Your task to perform on an android device: Search for "razer blade" on amazon, select the first entry, and add it to the cart. Image 0: 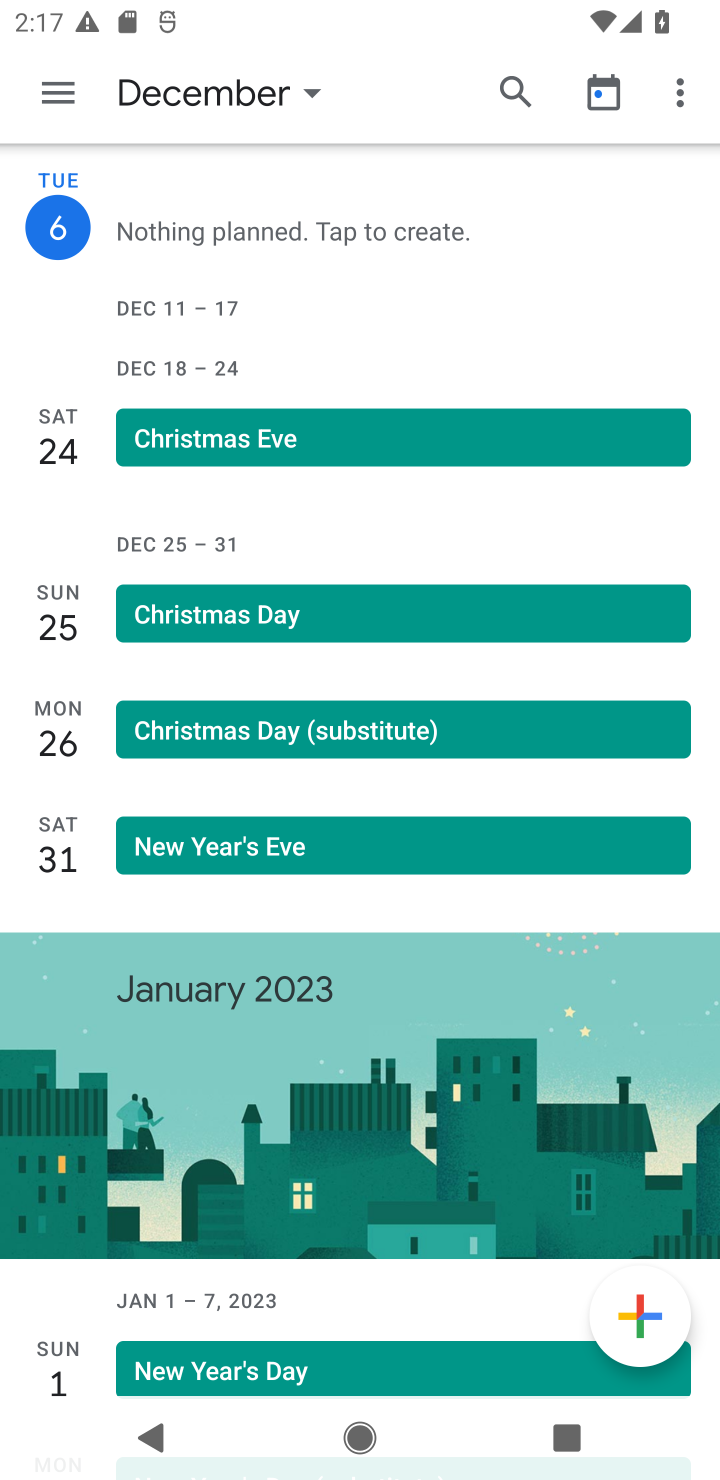
Step 0: press home button
Your task to perform on an android device: Search for "razer blade" on amazon, select the first entry, and add it to the cart. Image 1: 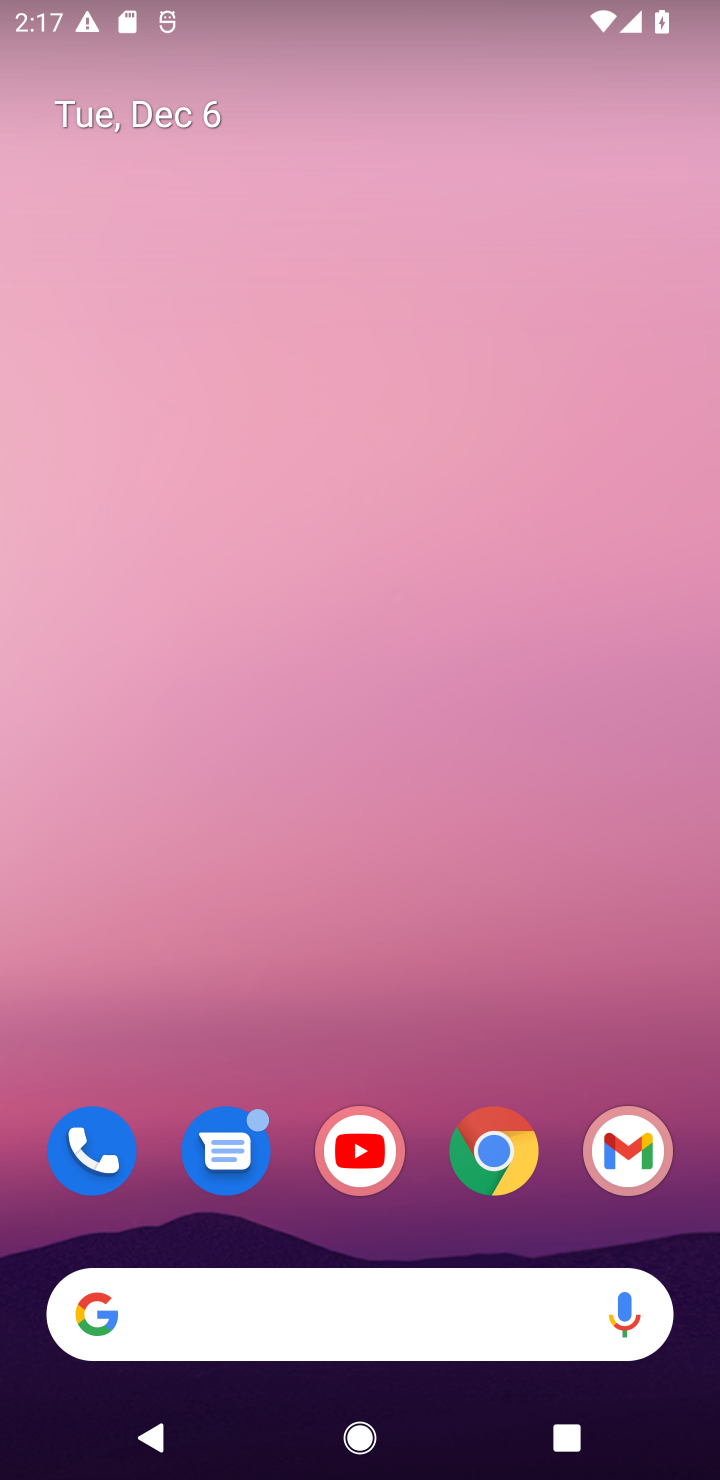
Step 1: click (492, 1168)
Your task to perform on an android device: Search for "razer blade" on amazon, select the first entry, and add it to the cart. Image 2: 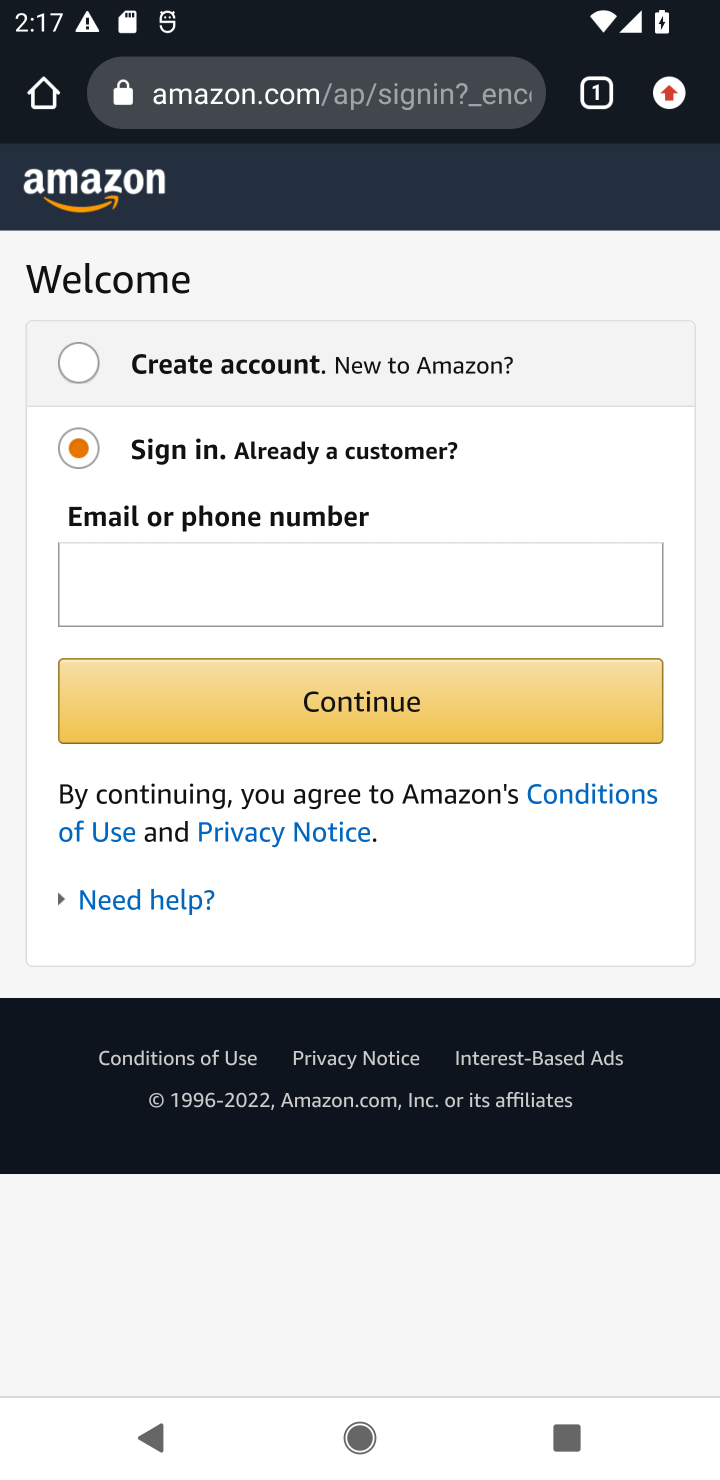
Step 2: press back button
Your task to perform on an android device: Search for "razer blade" on amazon, select the first entry, and add it to the cart. Image 3: 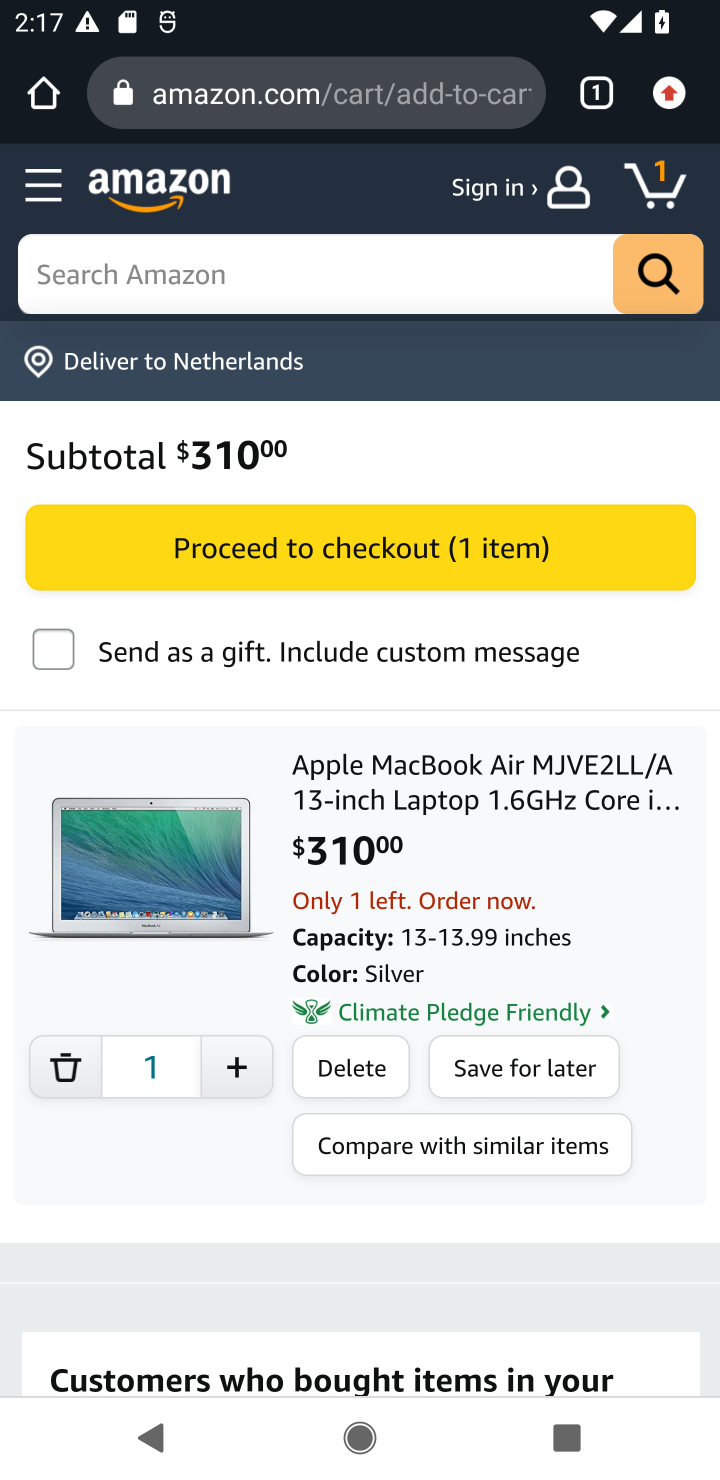
Step 3: click (363, 275)
Your task to perform on an android device: Search for "razer blade" on amazon, select the first entry, and add it to the cart. Image 4: 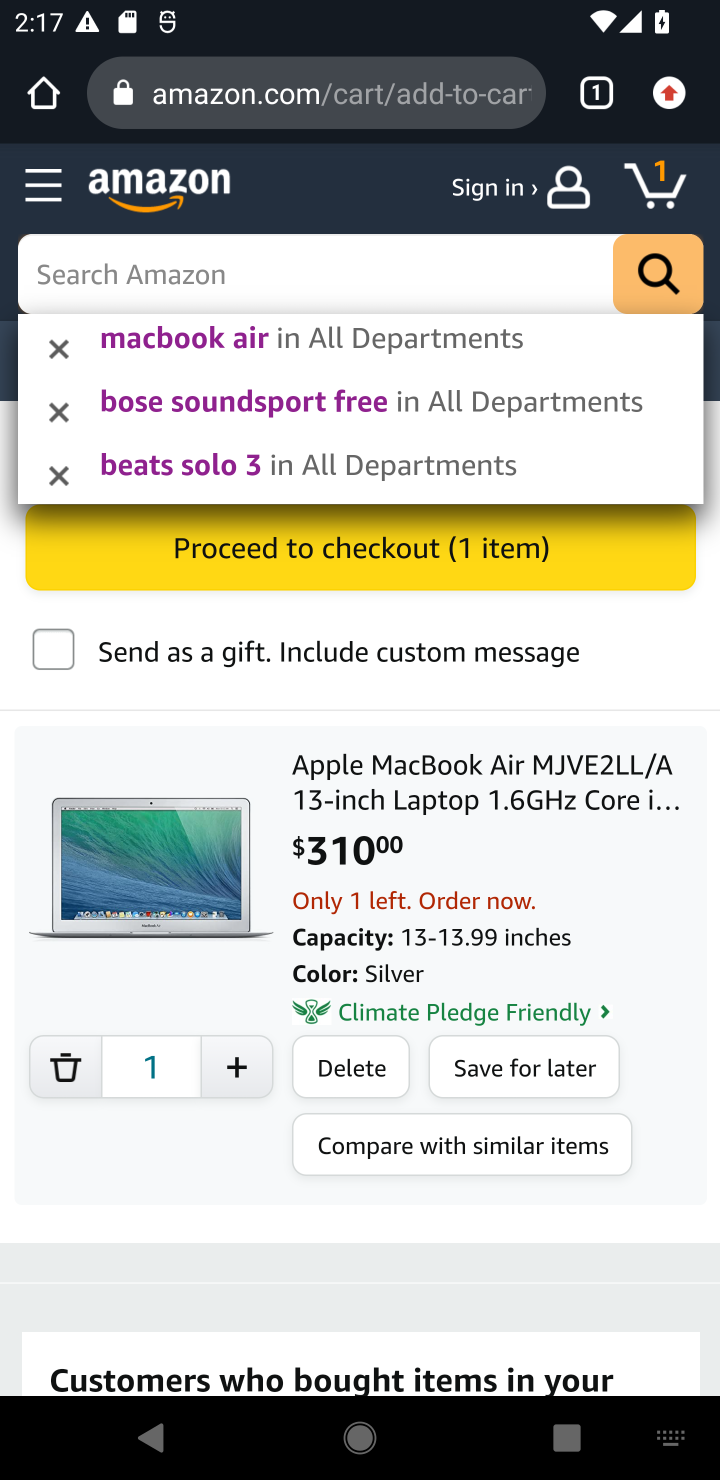
Step 4: type "razer blade"
Your task to perform on an android device: Search for "razer blade" on amazon, select the first entry, and add it to the cart. Image 5: 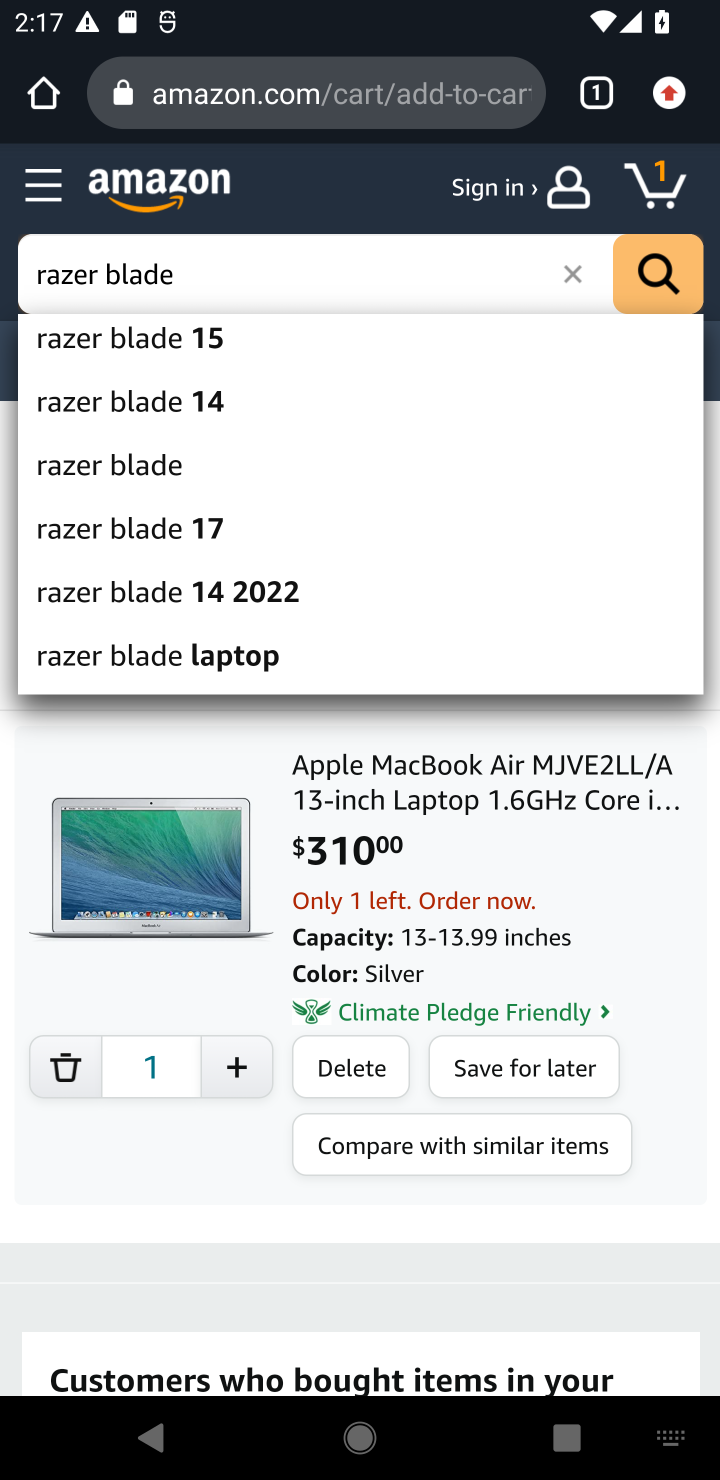
Step 5: click (102, 472)
Your task to perform on an android device: Search for "razer blade" on amazon, select the first entry, and add it to the cart. Image 6: 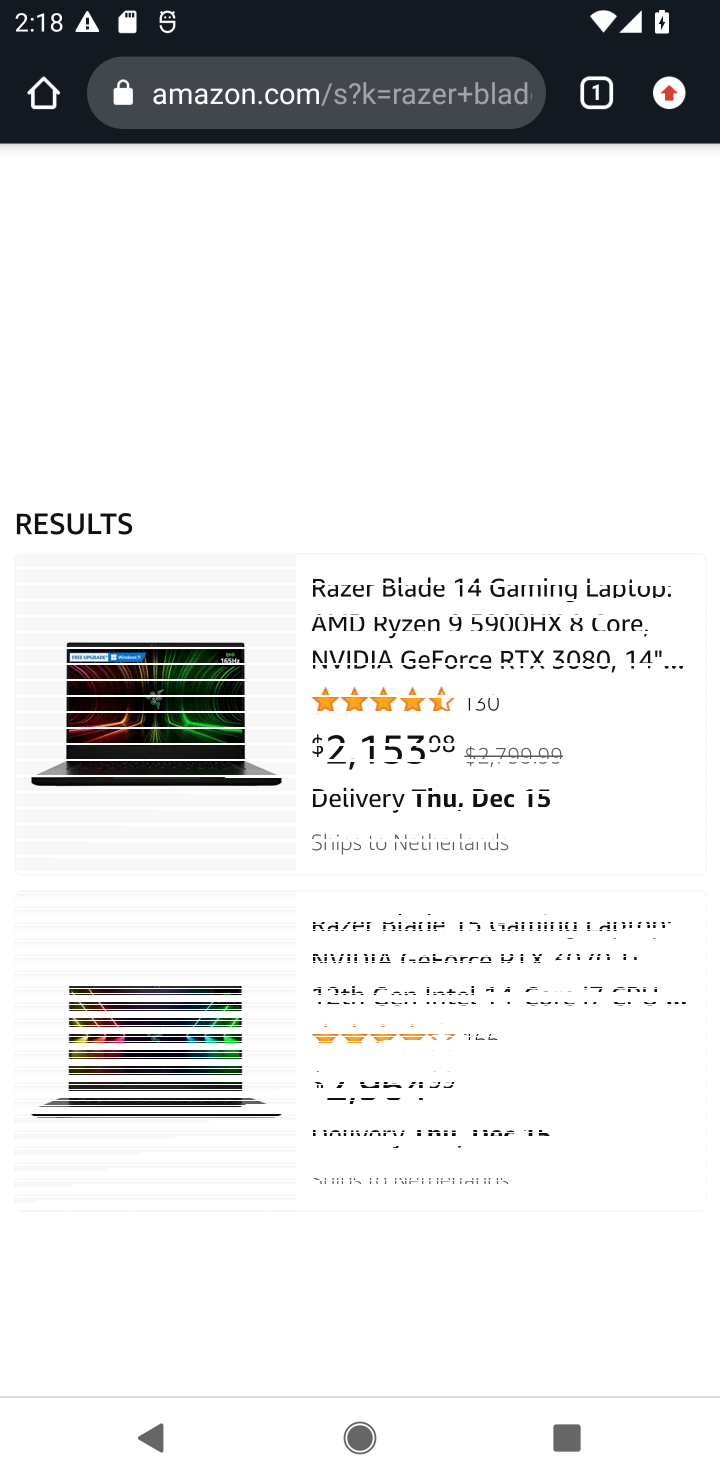
Step 6: click (438, 663)
Your task to perform on an android device: Search for "razer blade" on amazon, select the first entry, and add it to the cart. Image 7: 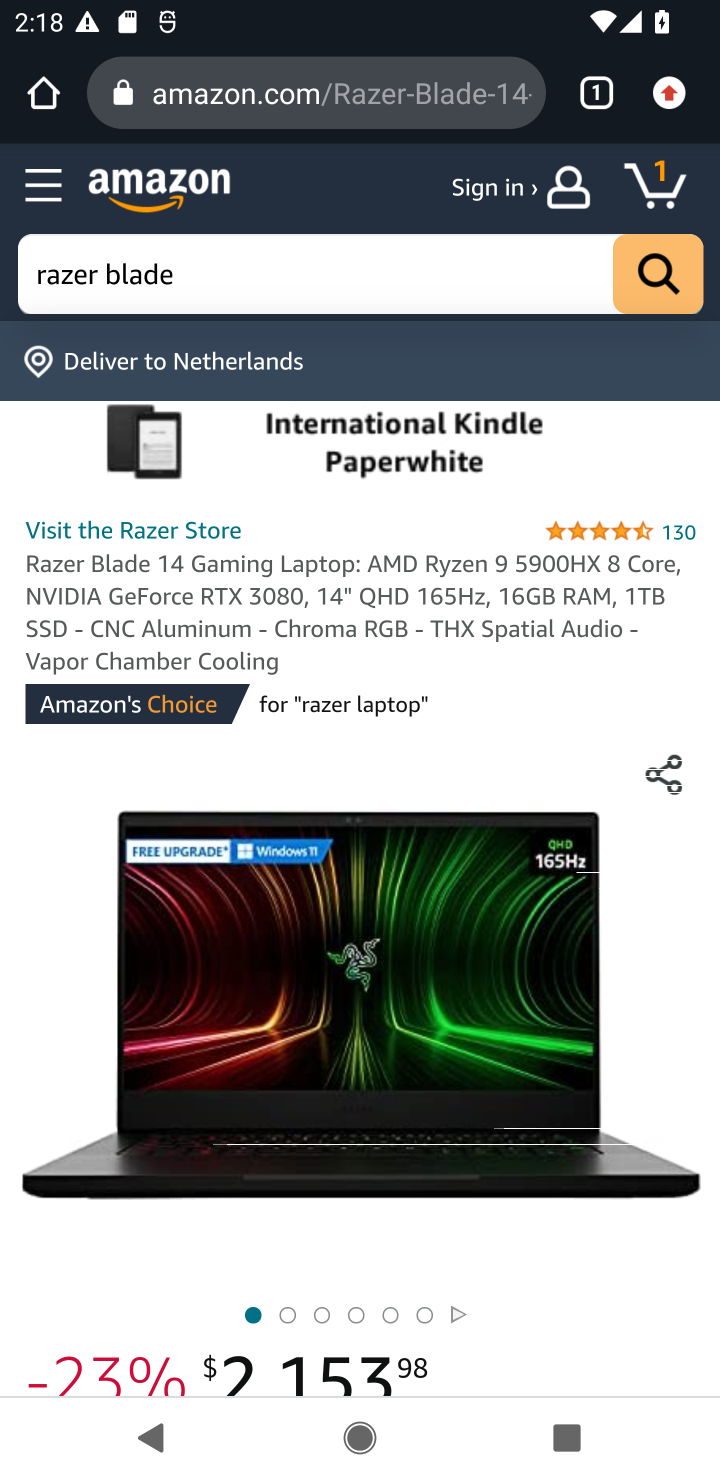
Step 7: drag from (444, 780) to (430, 319)
Your task to perform on an android device: Search for "razer blade" on amazon, select the first entry, and add it to the cart. Image 8: 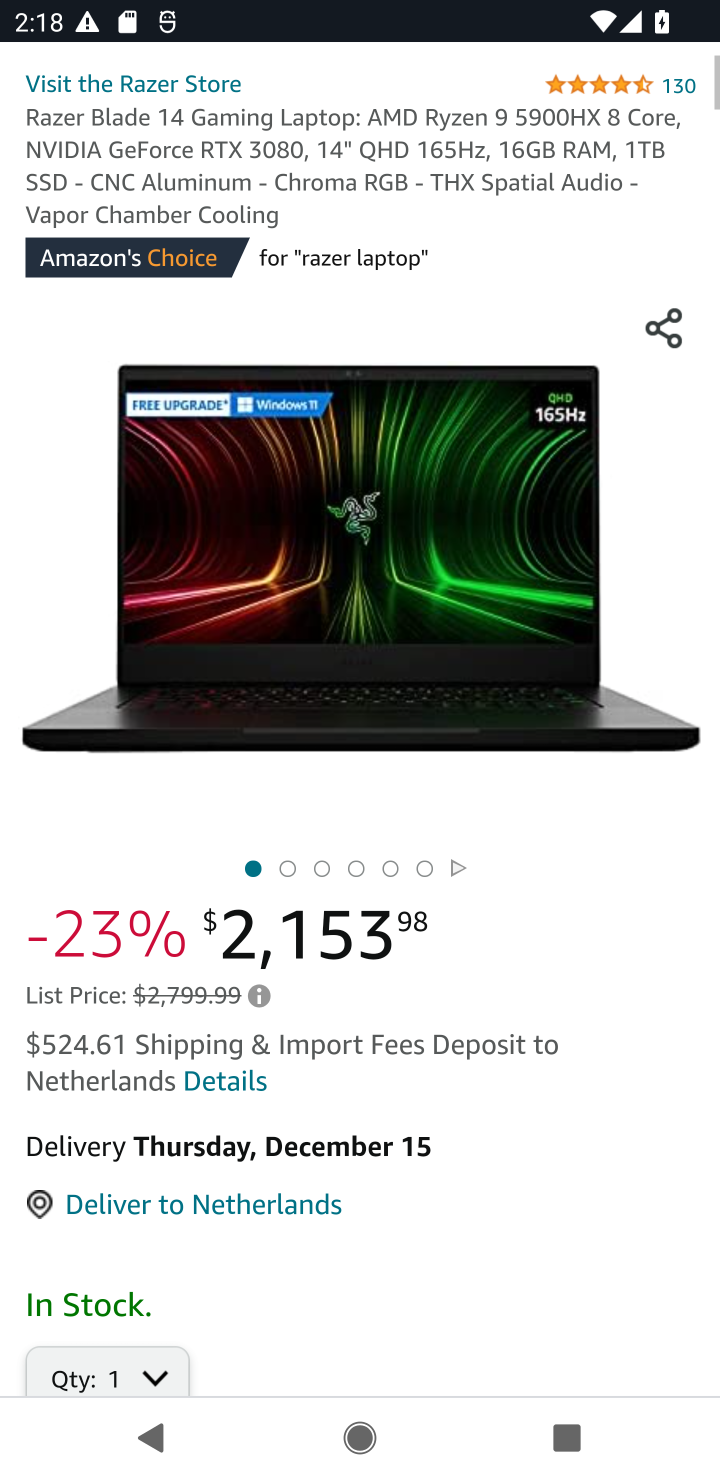
Step 8: drag from (620, 1045) to (590, 338)
Your task to perform on an android device: Search for "razer blade" on amazon, select the first entry, and add it to the cart. Image 9: 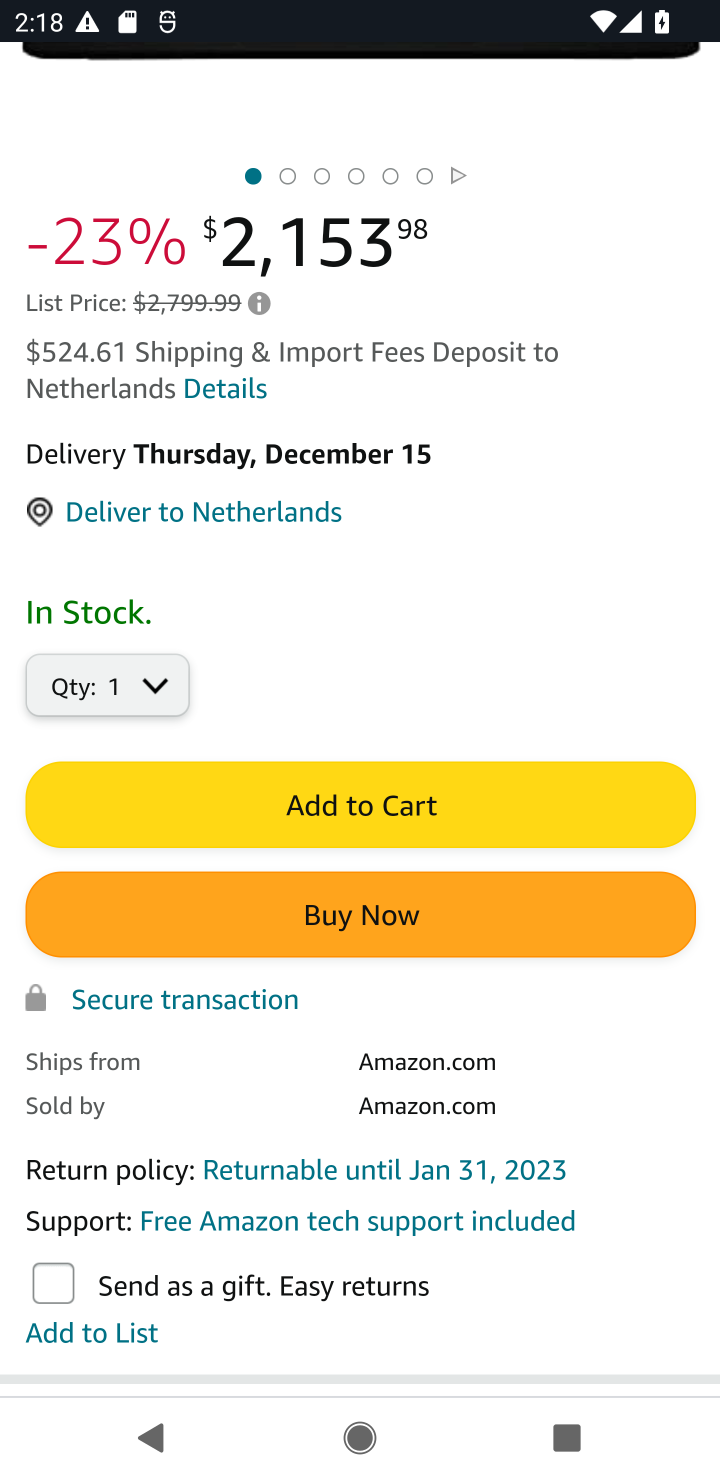
Step 9: click (282, 817)
Your task to perform on an android device: Search for "razer blade" on amazon, select the first entry, and add it to the cart. Image 10: 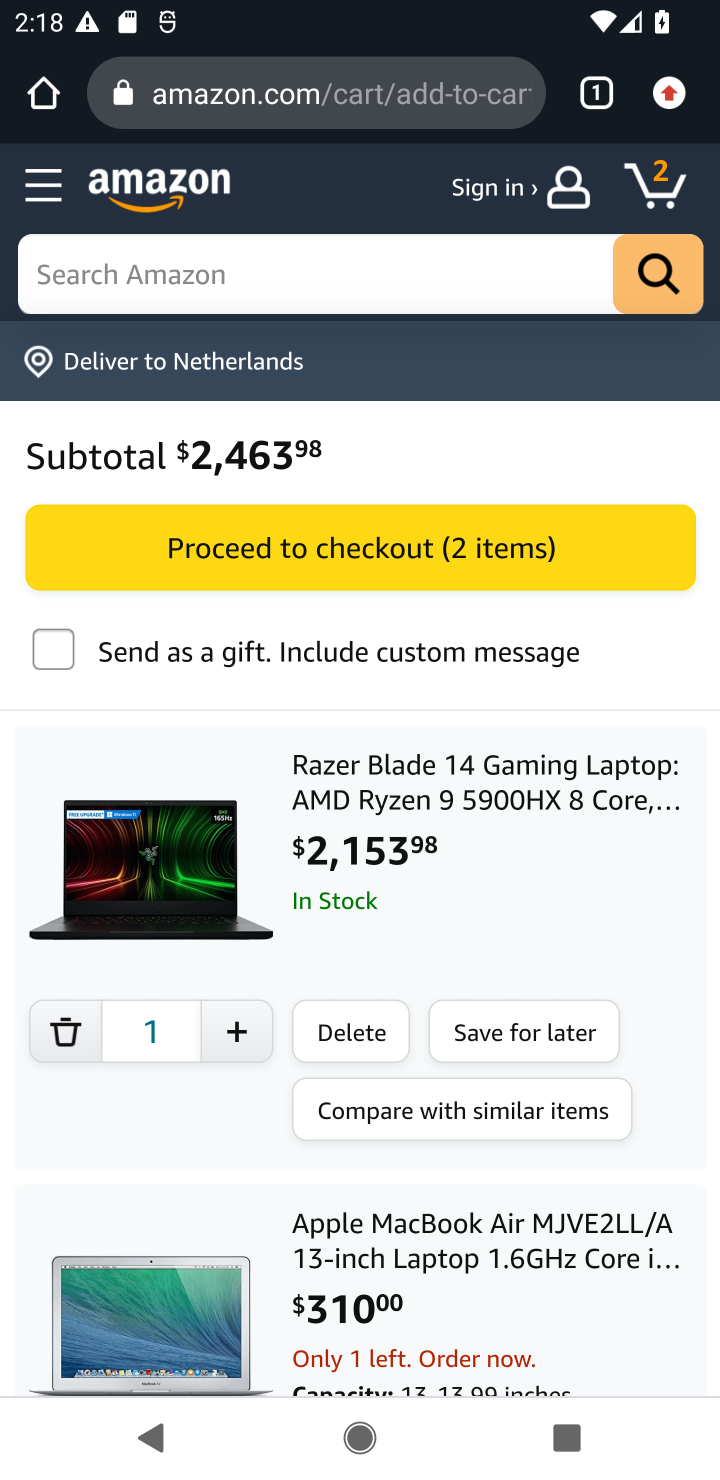
Step 10: task complete